Your task to perform on an android device: Go to Wikipedia Image 0: 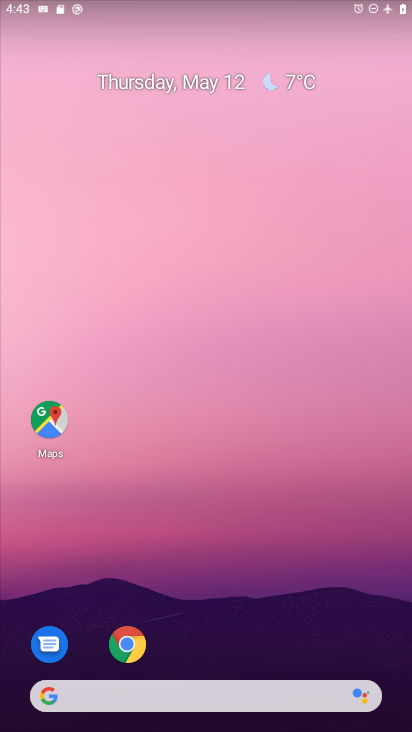
Step 0: click (137, 647)
Your task to perform on an android device: Go to Wikipedia Image 1: 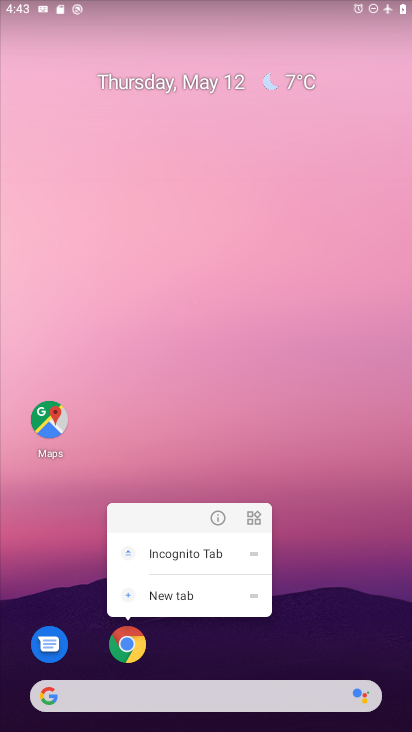
Step 1: click (126, 641)
Your task to perform on an android device: Go to Wikipedia Image 2: 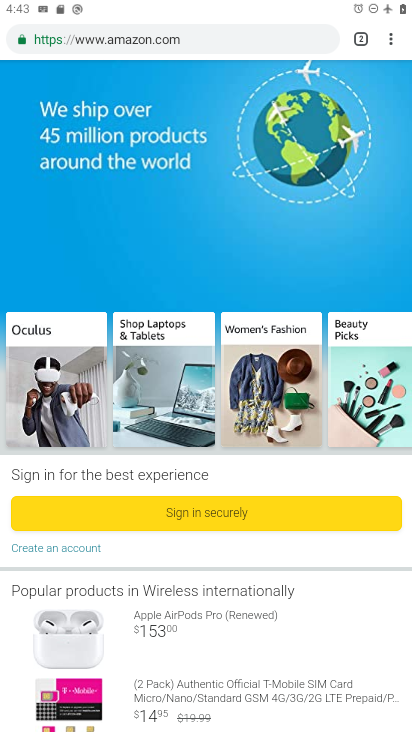
Step 2: drag from (206, 221) to (171, 485)
Your task to perform on an android device: Go to Wikipedia Image 3: 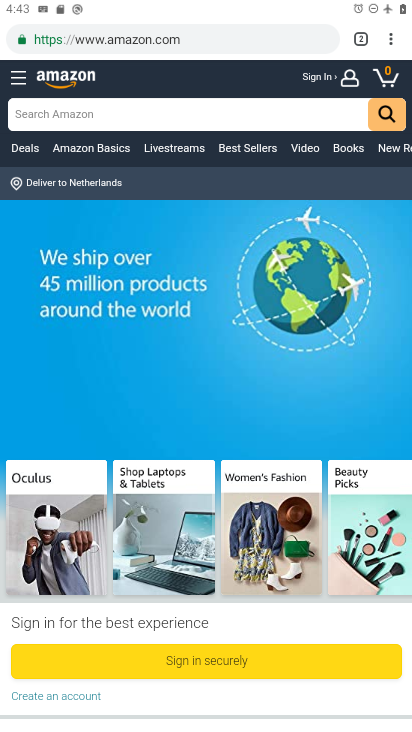
Step 3: click (101, 112)
Your task to perform on an android device: Go to Wikipedia Image 4: 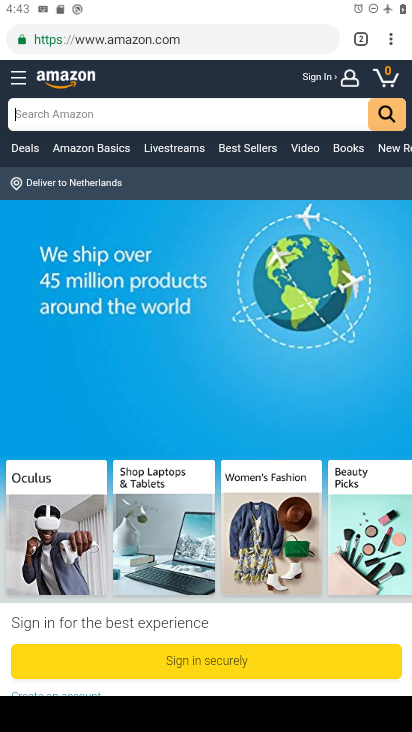
Step 4: click (143, 25)
Your task to perform on an android device: Go to Wikipedia Image 5: 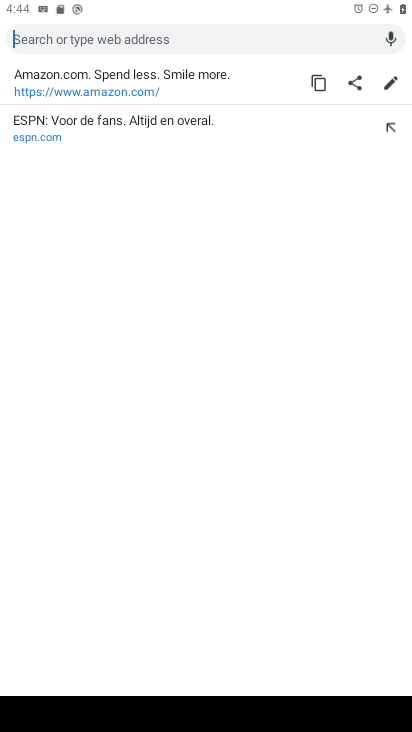
Step 5: type "wikipedia.org"
Your task to perform on an android device: Go to Wikipedia Image 6: 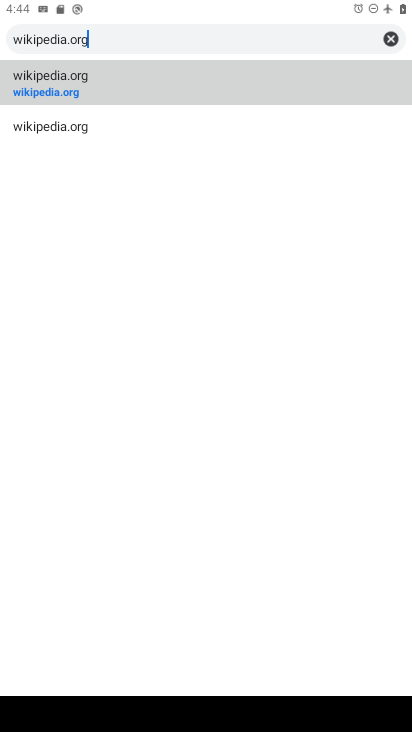
Step 6: click (107, 89)
Your task to perform on an android device: Go to Wikipedia Image 7: 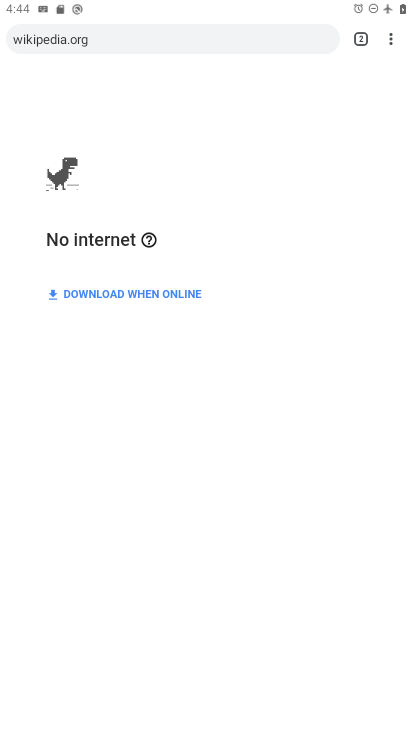
Step 7: task complete